Your task to perform on an android device: change the clock style Image 0: 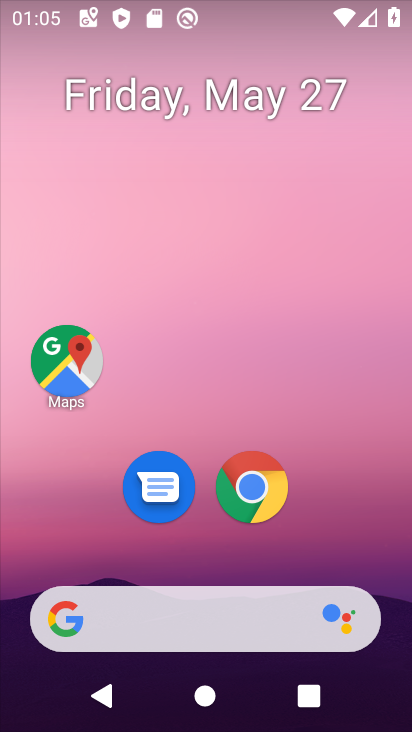
Step 0: drag from (155, 718) to (155, 128)
Your task to perform on an android device: change the clock style Image 1: 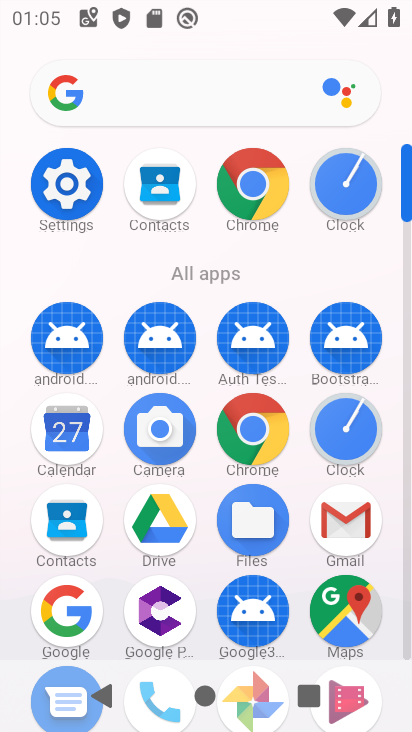
Step 1: click (351, 194)
Your task to perform on an android device: change the clock style Image 2: 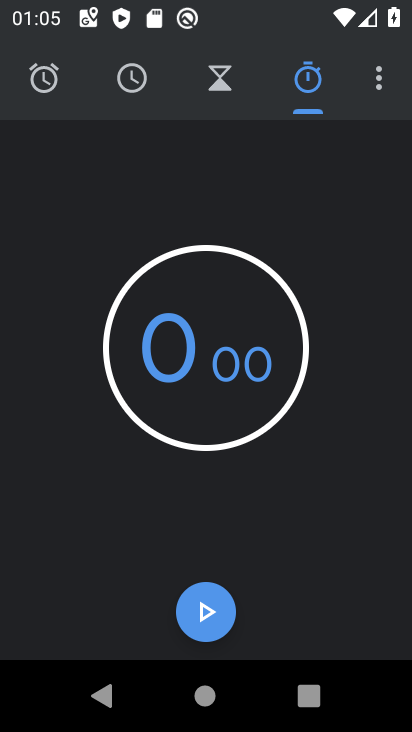
Step 2: click (373, 84)
Your task to perform on an android device: change the clock style Image 3: 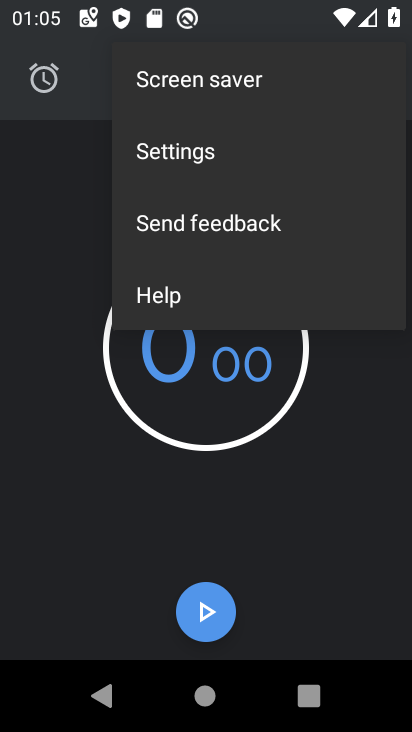
Step 3: click (194, 158)
Your task to perform on an android device: change the clock style Image 4: 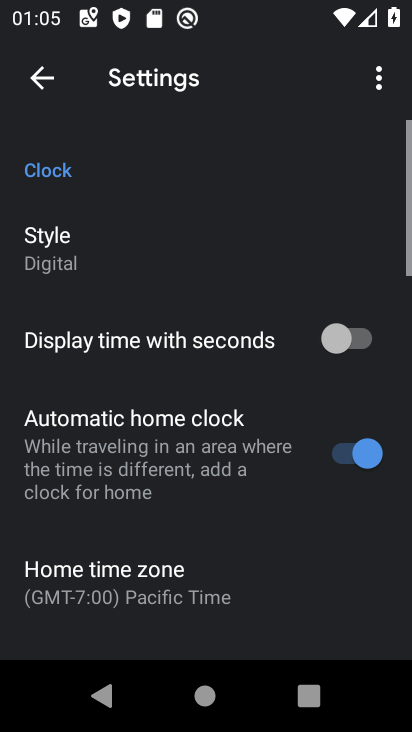
Step 4: click (103, 267)
Your task to perform on an android device: change the clock style Image 5: 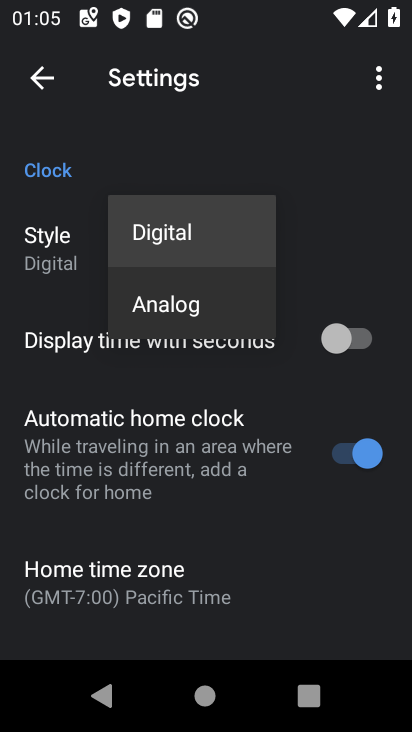
Step 5: click (150, 301)
Your task to perform on an android device: change the clock style Image 6: 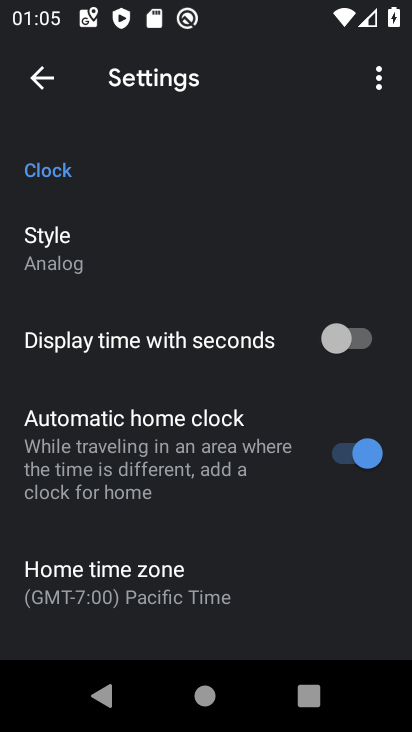
Step 6: task complete